Your task to perform on an android device: Do I have any events tomorrow? Image 0: 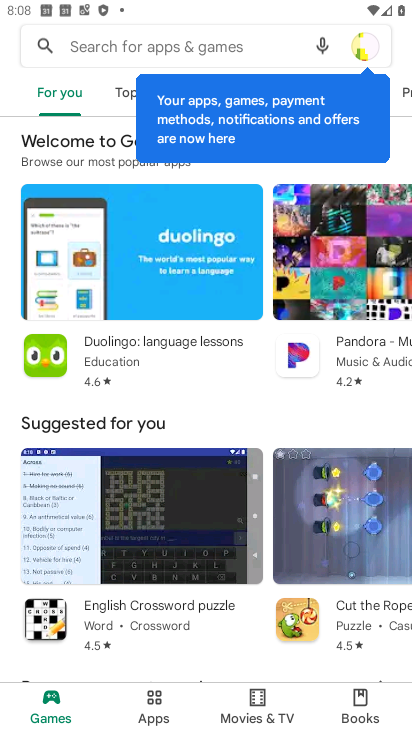
Step 0: press home button
Your task to perform on an android device: Do I have any events tomorrow? Image 1: 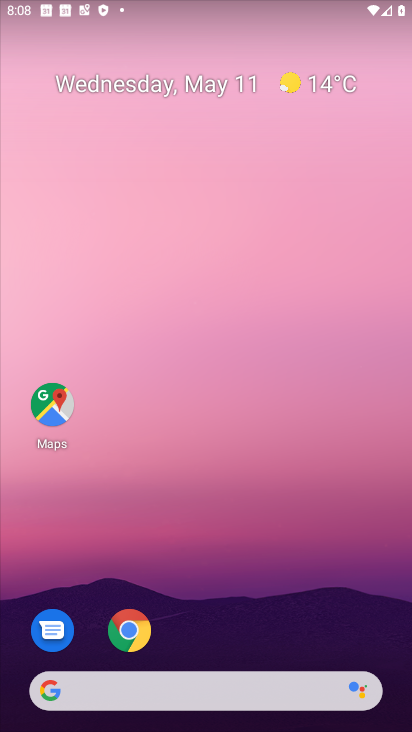
Step 1: drag from (178, 653) to (306, 3)
Your task to perform on an android device: Do I have any events tomorrow? Image 2: 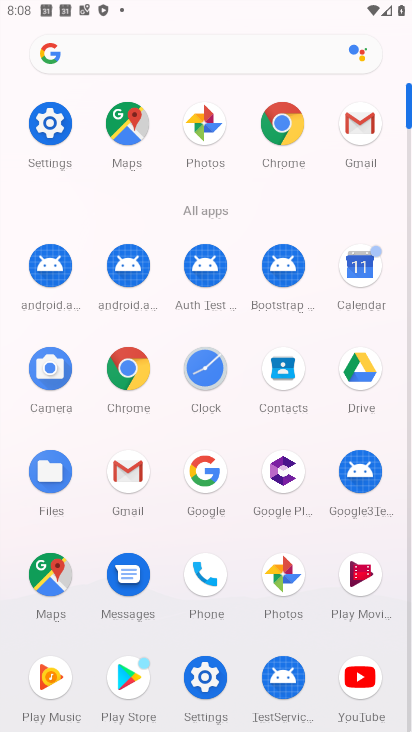
Step 2: click (351, 274)
Your task to perform on an android device: Do I have any events tomorrow? Image 3: 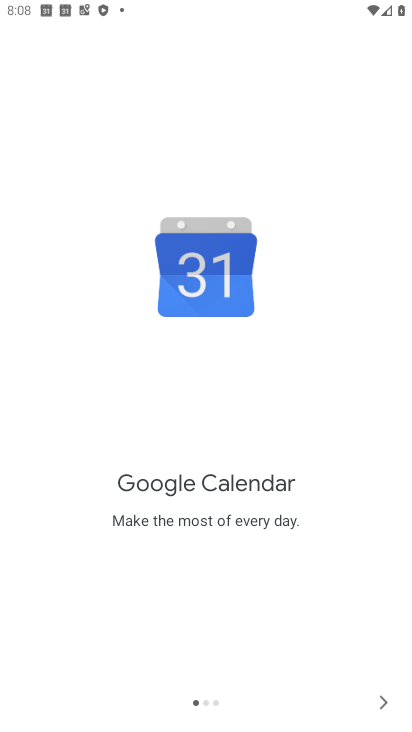
Step 3: click (381, 701)
Your task to perform on an android device: Do I have any events tomorrow? Image 4: 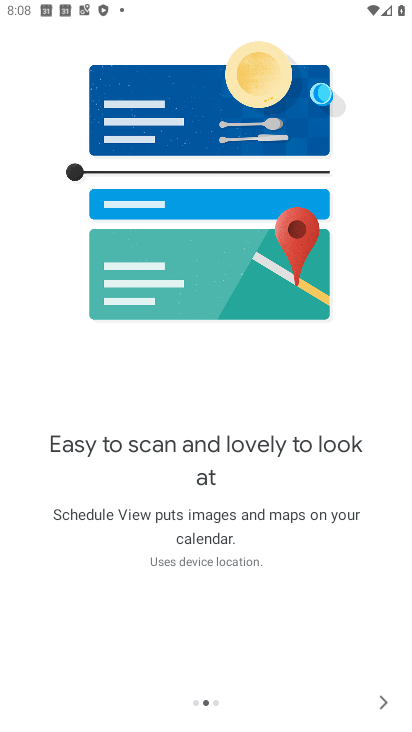
Step 4: click (381, 701)
Your task to perform on an android device: Do I have any events tomorrow? Image 5: 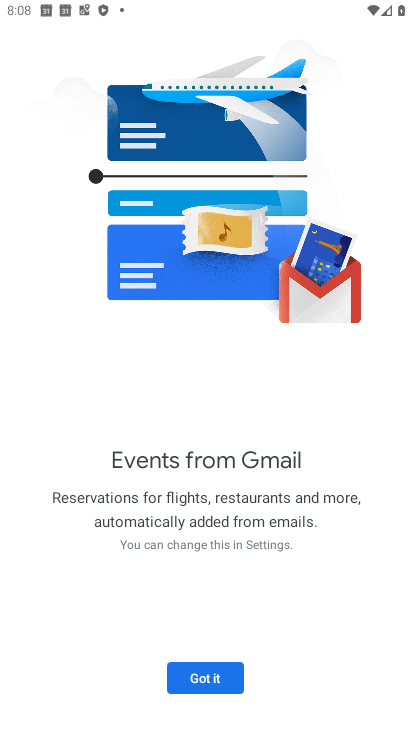
Step 5: click (215, 675)
Your task to perform on an android device: Do I have any events tomorrow? Image 6: 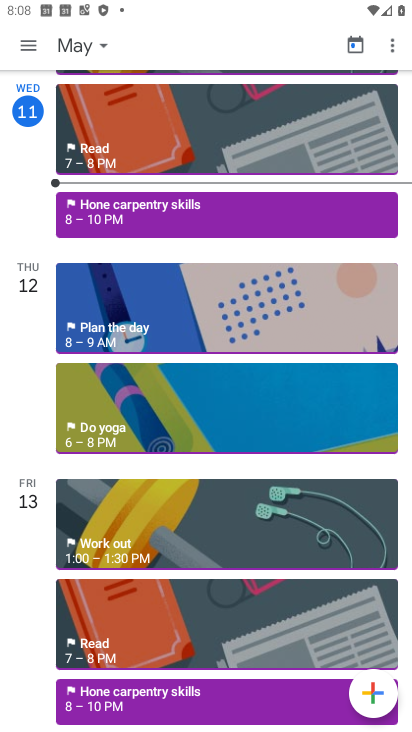
Step 6: click (42, 283)
Your task to perform on an android device: Do I have any events tomorrow? Image 7: 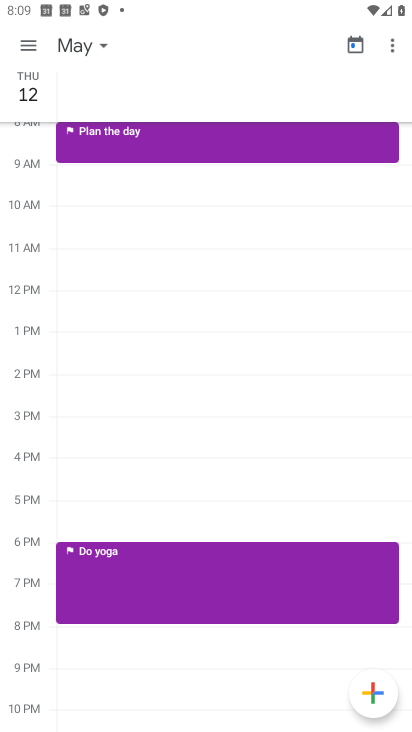
Step 7: task complete